Your task to perform on an android device: Open Wikipedia Image 0: 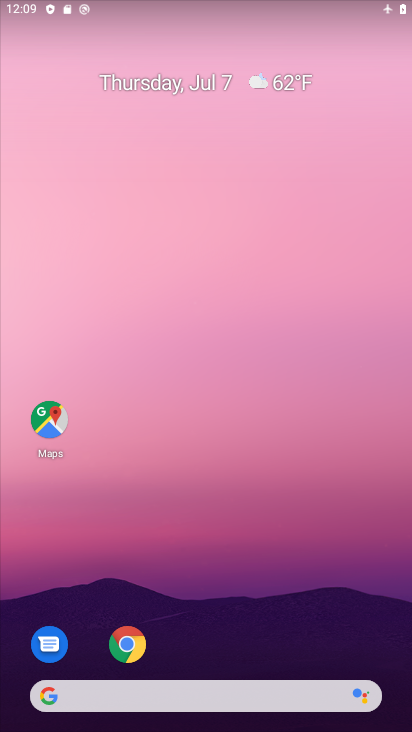
Step 0: click (138, 652)
Your task to perform on an android device: Open Wikipedia Image 1: 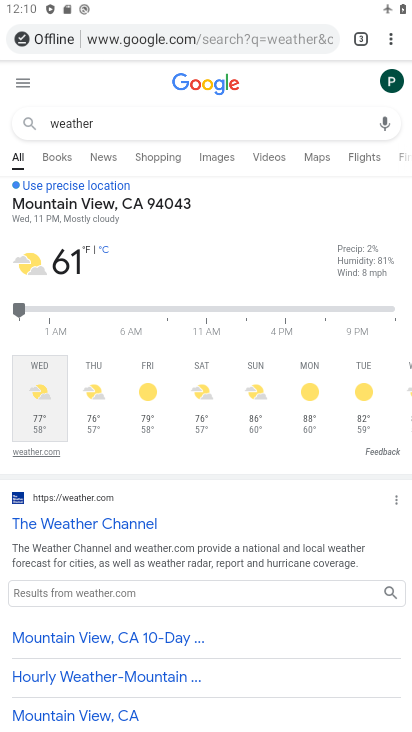
Step 1: click (363, 44)
Your task to perform on an android device: Open Wikipedia Image 2: 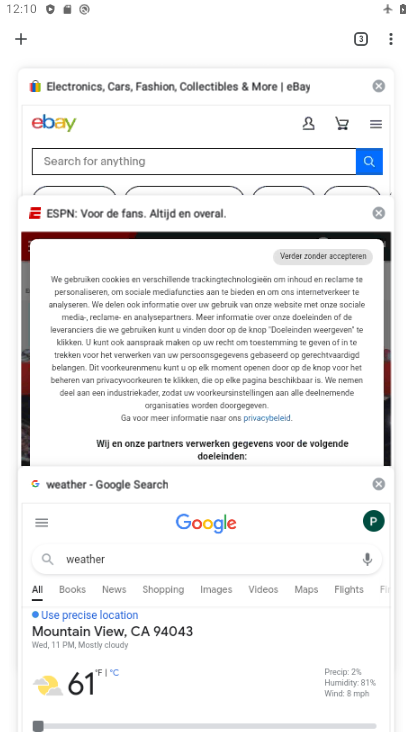
Step 2: click (378, 95)
Your task to perform on an android device: Open Wikipedia Image 3: 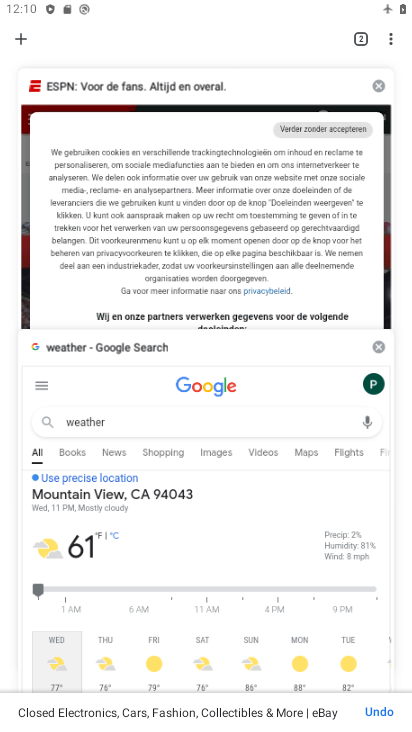
Step 3: click (379, 88)
Your task to perform on an android device: Open Wikipedia Image 4: 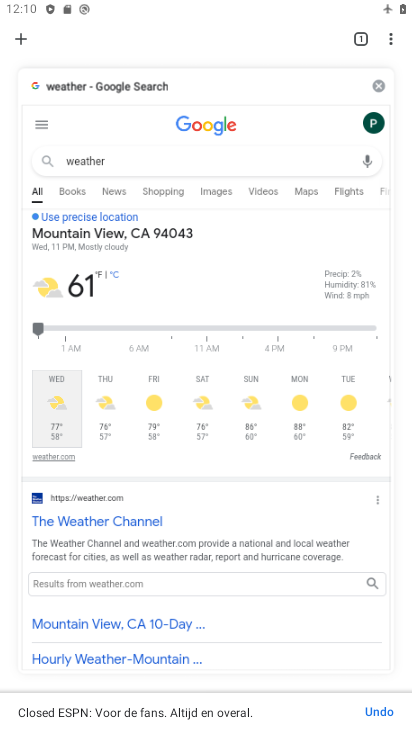
Step 4: click (378, 82)
Your task to perform on an android device: Open Wikipedia Image 5: 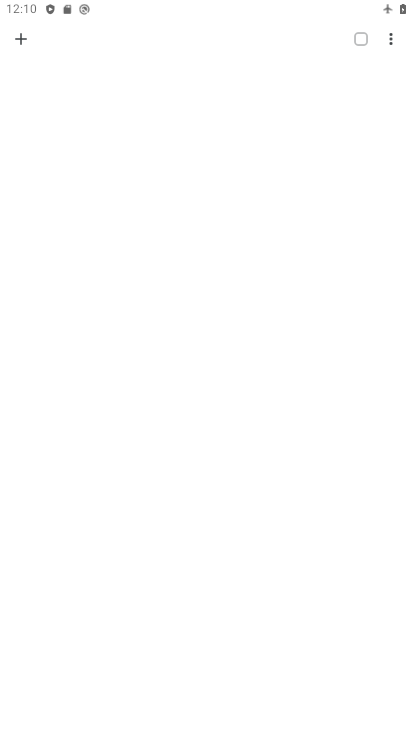
Step 5: click (10, 32)
Your task to perform on an android device: Open Wikipedia Image 6: 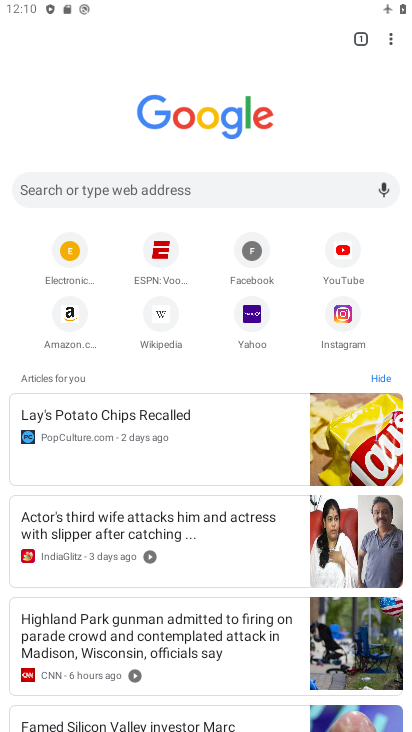
Step 6: click (147, 323)
Your task to perform on an android device: Open Wikipedia Image 7: 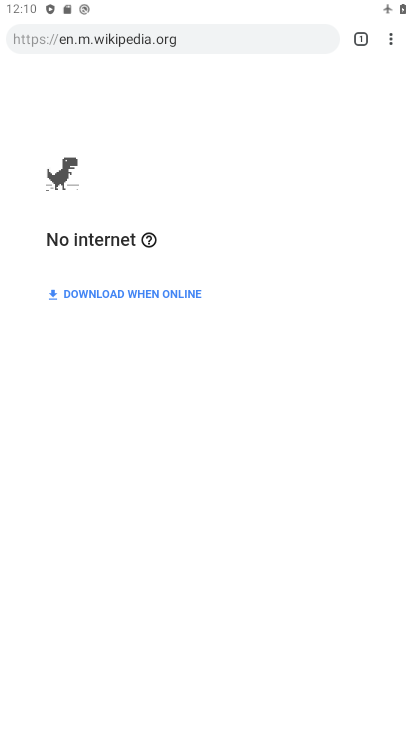
Step 7: task complete